Your task to perform on an android device: turn on wifi Image 0: 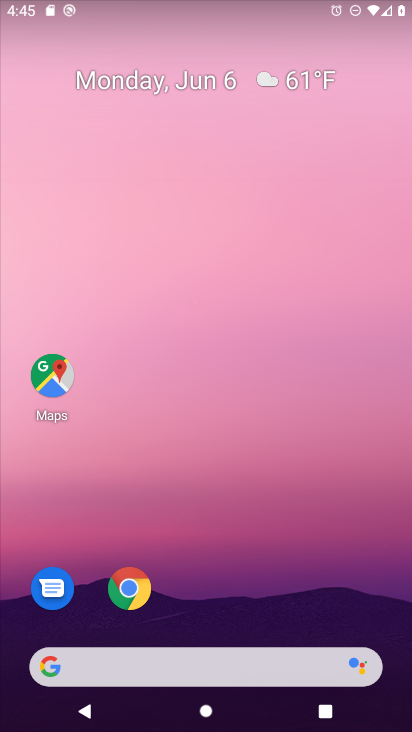
Step 0: drag from (215, 546) to (198, 195)
Your task to perform on an android device: turn on wifi Image 1: 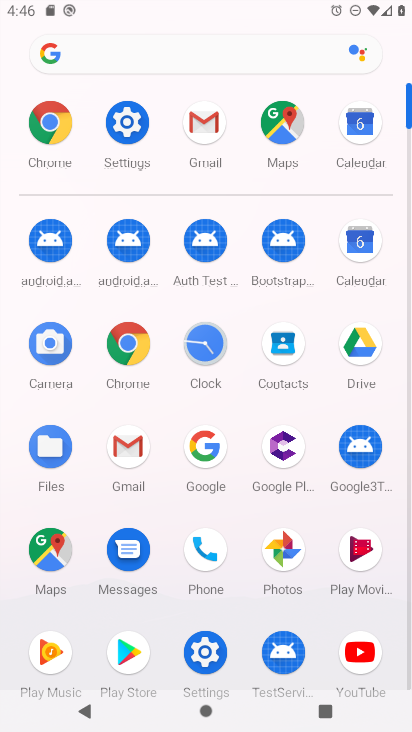
Step 1: click (134, 130)
Your task to perform on an android device: turn on wifi Image 2: 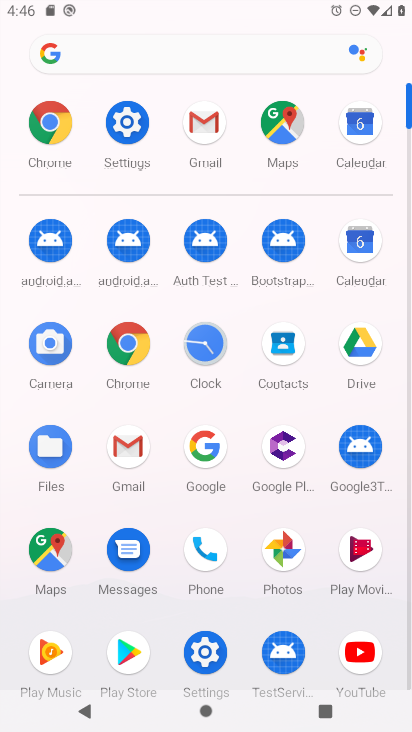
Step 2: click (119, 130)
Your task to perform on an android device: turn on wifi Image 3: 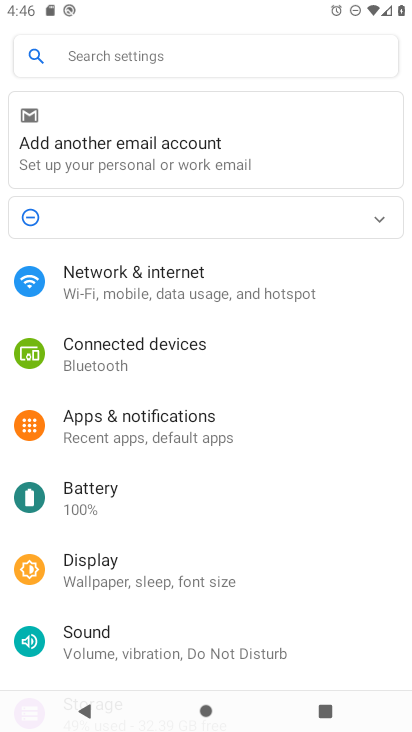
Step 3: click (196, 280)
Your task to perform on an android device: turn on wifi Image 4: 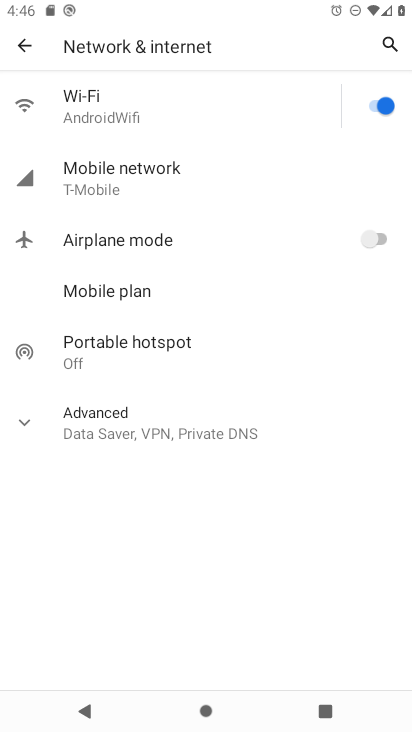
Step 4: task complete